Your task to perform on an android device: Open wifi settings Image 0: 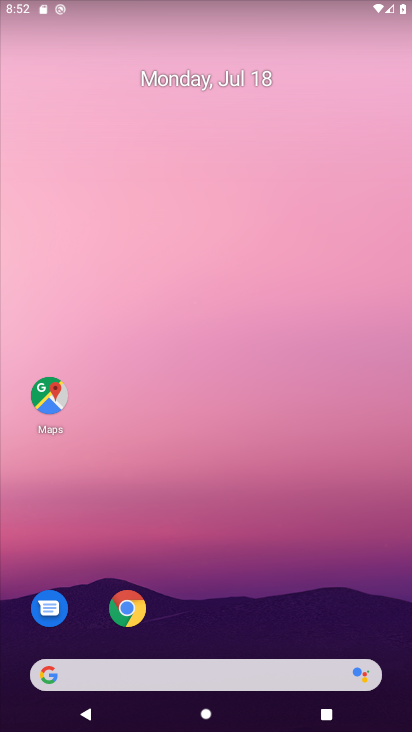
Step 0: drag from (192, 672) to (215, 110)
Your task to perform on an android device: Open wifi settings Image 1: 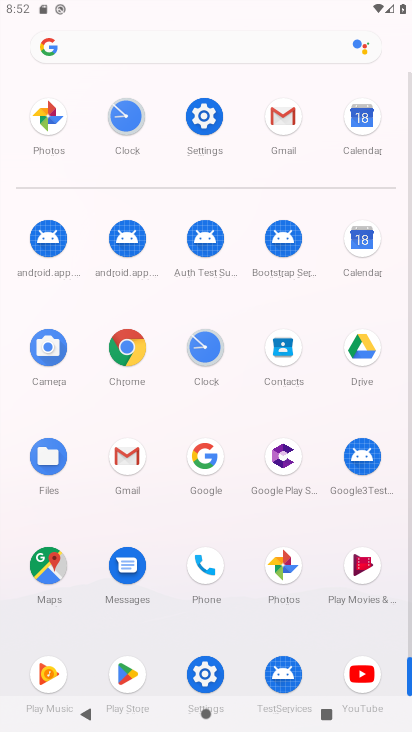
Step 1: click (203, 113)
Your task to perform on an android device: Open wifi settings Image 2: 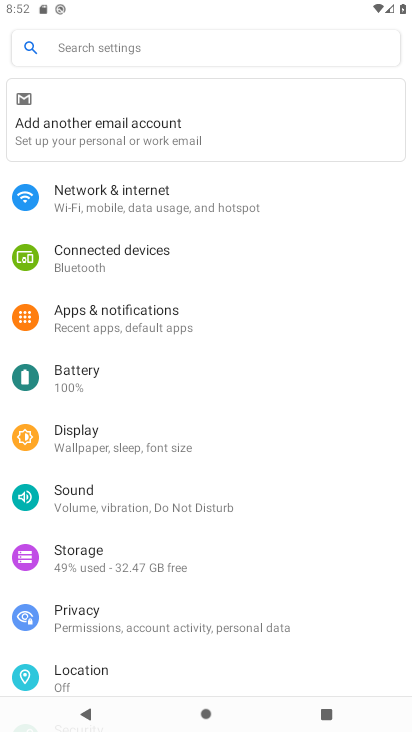
Step 2: click (147, 198)
Your task to perform on an android device: Open wifi settings Image 3: 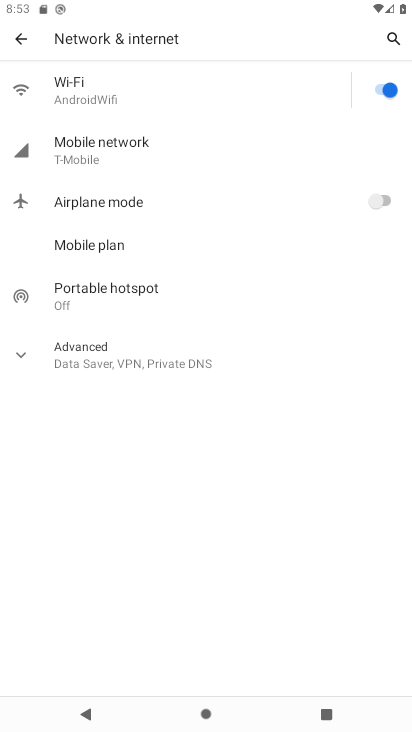
Step 3: click (107, 96)
Your task to perform on an android device: Open wifi settings Image 4: 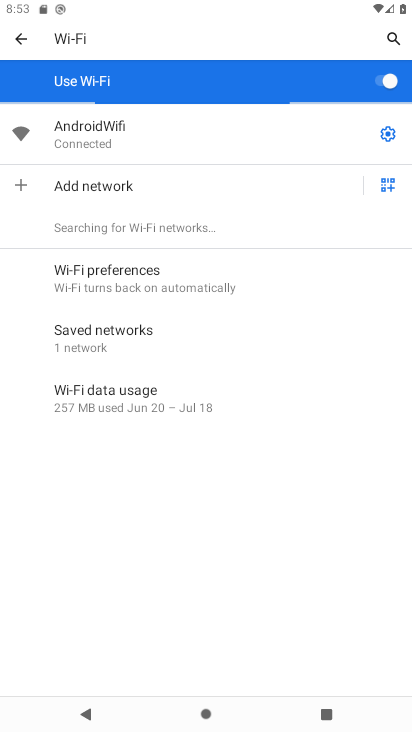
Step 4: click (388, 134)
Your task to perform on an android device: Open wifi settings Image 5: 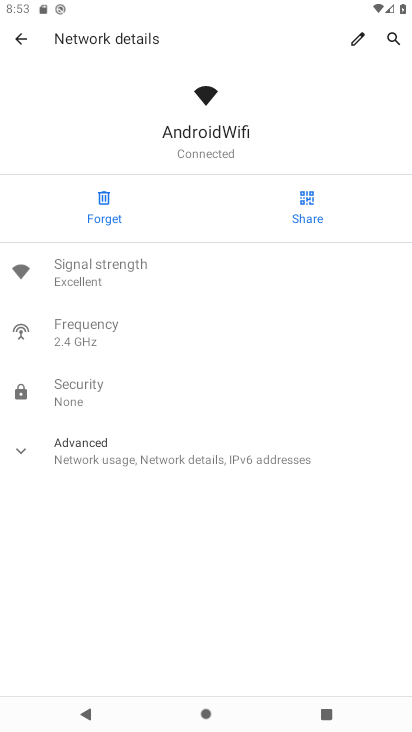
Step 5: task complete